Your task to perform on an android device: check android version Image 0: 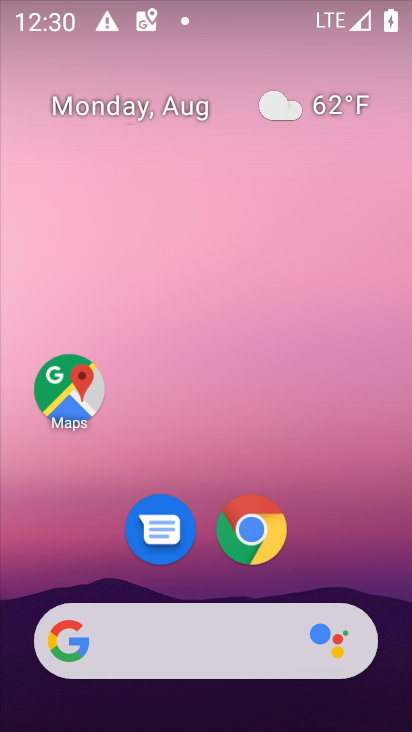
Step 0: drag from (208, 597) to (204, 284)
Your task to perform on an android device: check android version Image 1: 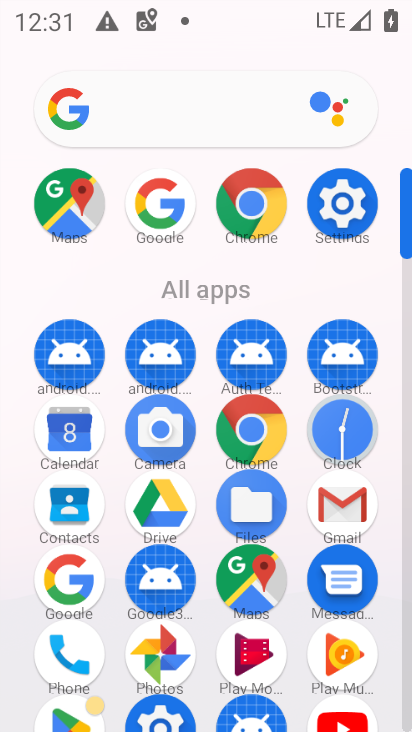
Step 1: click (324, 212)
Your task to perform on an android device: check android version Image 2: 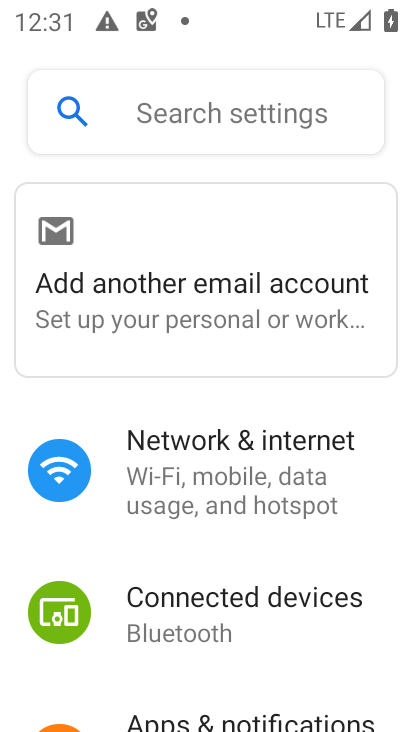
Step 2: drag from (319, 591) to (336, 259)
Your task to perform on an android device: check android version Image 3: 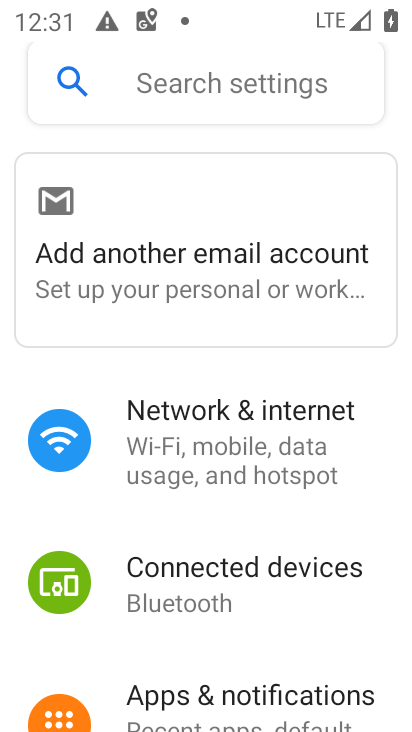
Step 3: drag from (207, 688) to (180, 294)
Your task to perform on an android device: check android version Image 4: 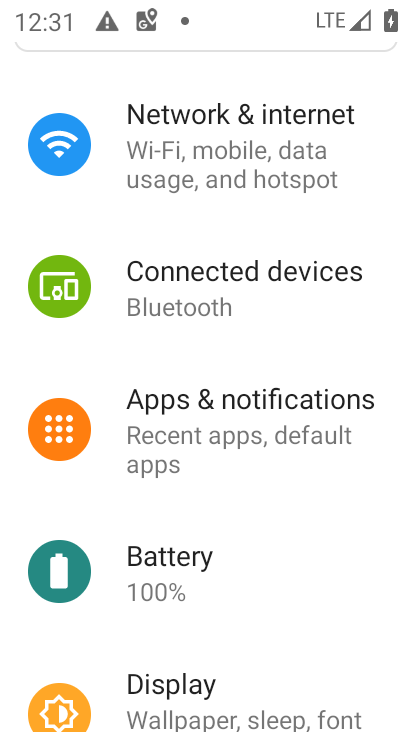
Step 4: drag from (106, 706) to (102, 381)
Your task to perform on an android device: check android version Image 5: 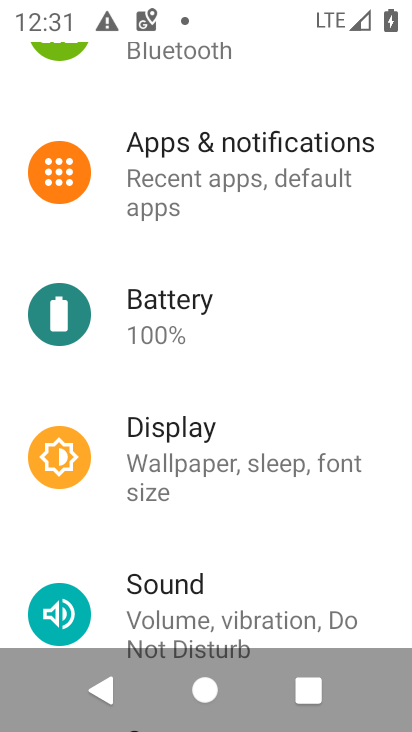
Step 5: drag from (181, 645) to (183, 347)
Your task to perform on an android device: check android version Image 6: 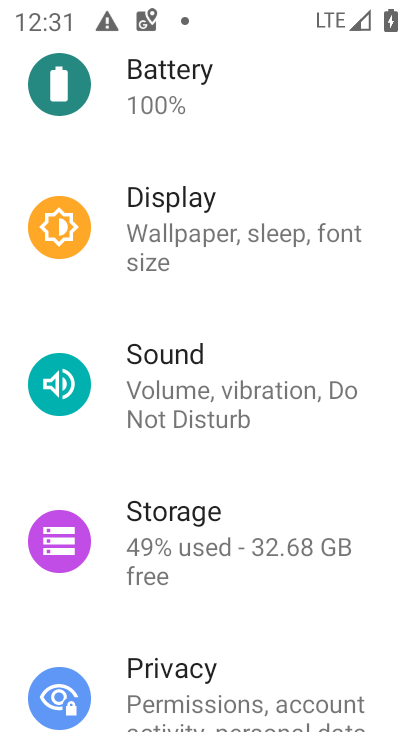
Step 6: drag from (161, 657) to (180, 348)
Your task to perform on an android device: check android version Image 7: 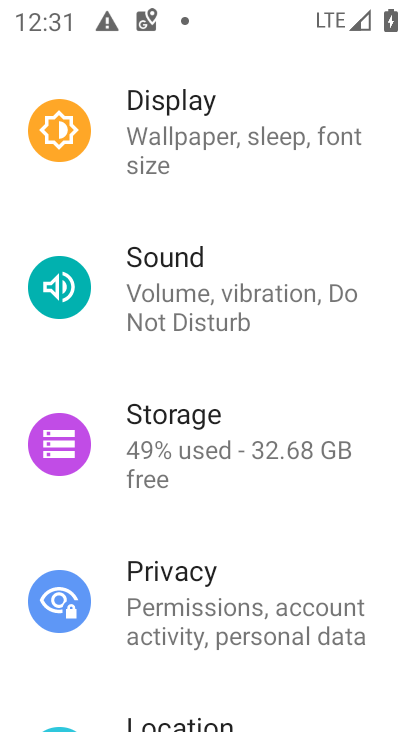
Step 7: drag from (160, 706) to (190, 344)
Your task to perform on an android device: check android version Image 8: 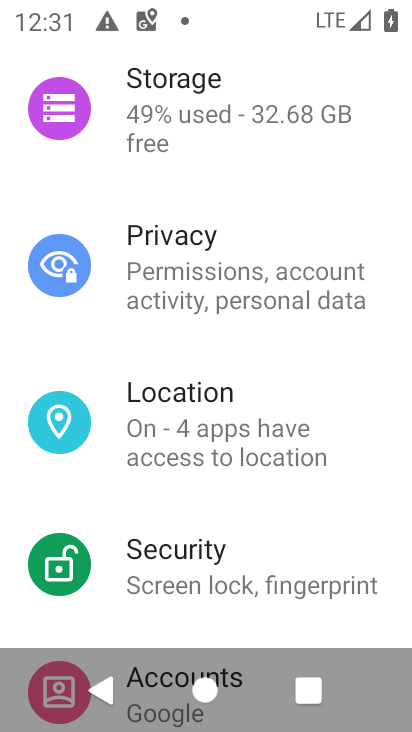
Step 8: drag from (166, 585) to (166, 244)
Your task to perform on an android device: check android version Image 9: 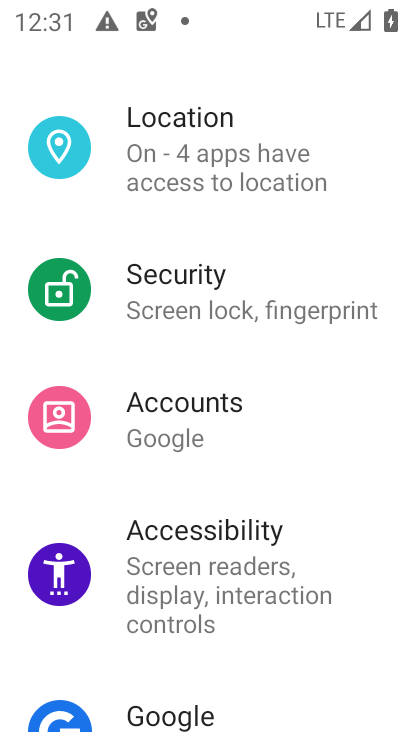
Step 9: drag from (125, 689) to (145, 326)
Your task to perform on an android device: check android version Image 10: 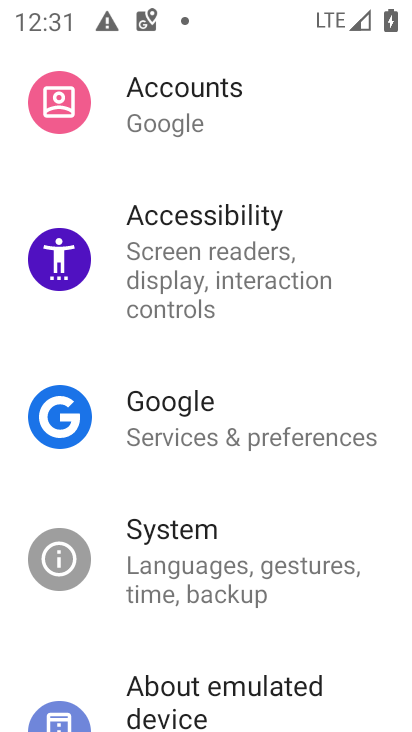
Step 10: click (169, 441)
Your task to perform on an android device: check android version Image 11: 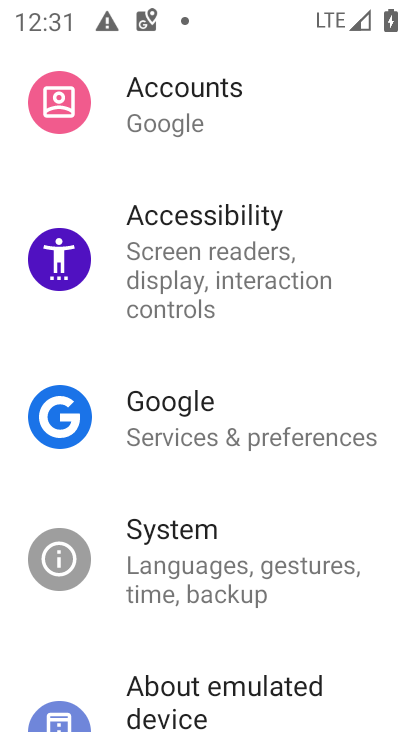
Step 11: click (170, 710)
Your task to perform on an android device: check android version Image 12: 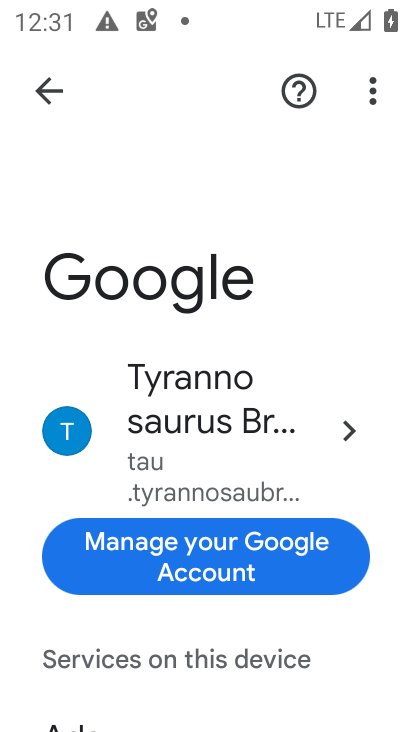
Step 12: drag from (188, 651) to (188, 292)
Your task to perform on an android device: check android version Image 13: 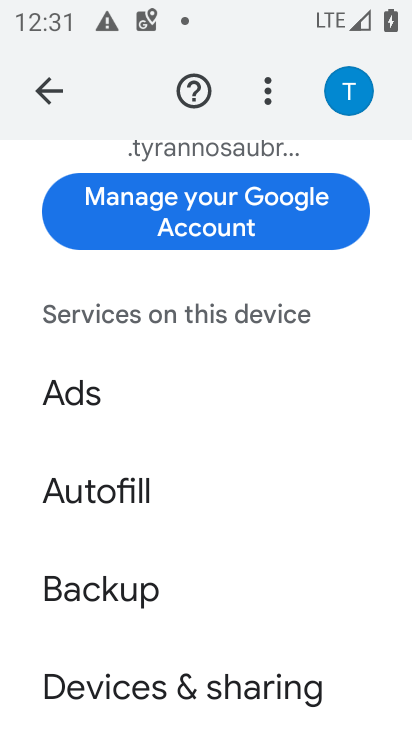
Step 13: drag from (152, 646) to (150, 378)
Your task to perform on an android device: check android version Image 14: 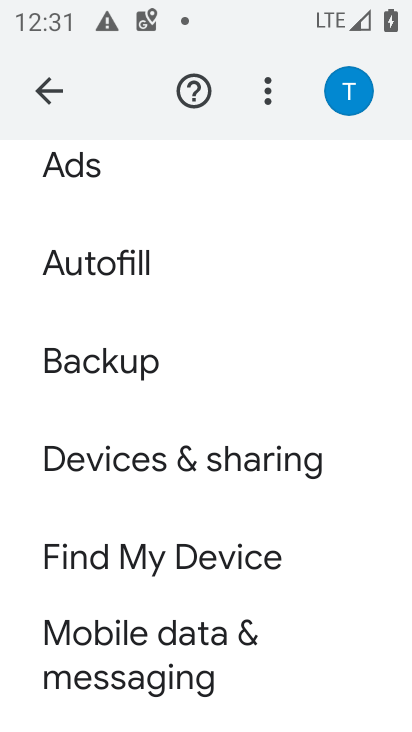
Step 14: drag from (126, 666) to (125, 348)
Your task to perform on an android device: check android version Image 15: 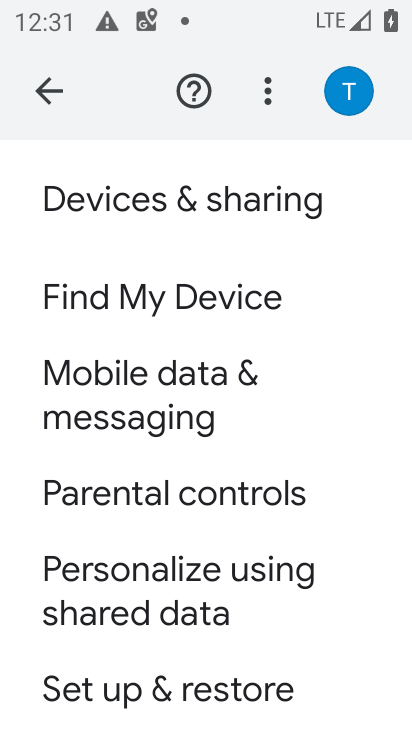
Step 15: drag from (83, 676) to (83, 460)
Your task to perform on an android device: check android version Image 16: 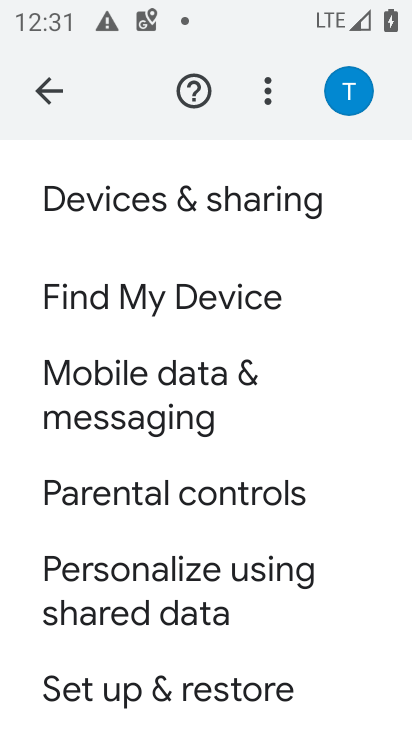
Step 16: drag from (112, 671) to (112, 367)
Your task to perform on an android device: check android version Image 17: 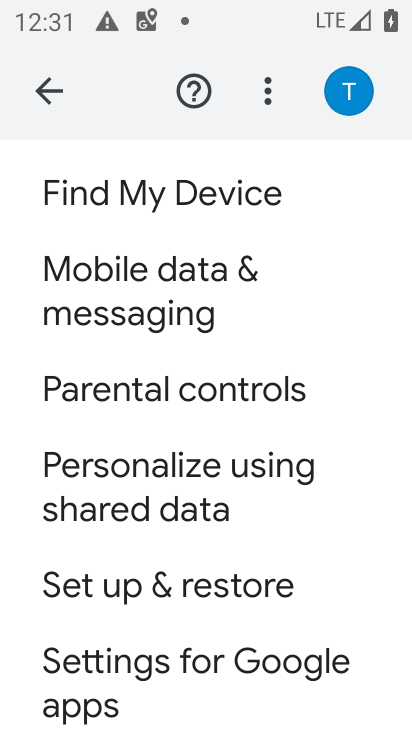
Step 17: drag from (115, 695) to (127, 389)
Your task to perform on an android device: check android version Image 18: 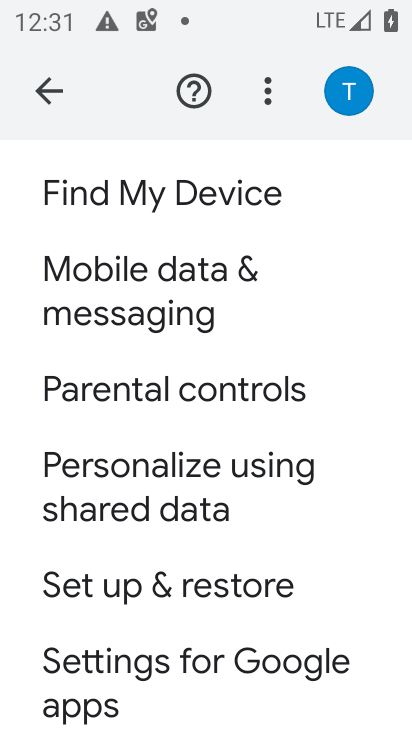
Step 18: click (44, 85)
Your task to perform on an android device: check android version Image 19: 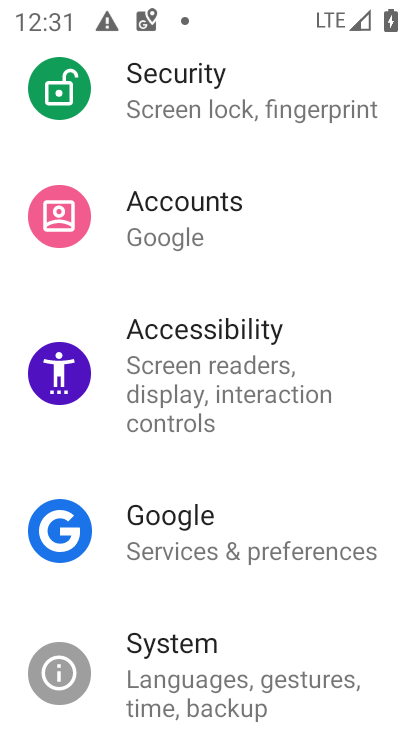
Step 19: drag from (247, 707) to (204, 334)
Your task to perform on an android device: check android version Image 20: 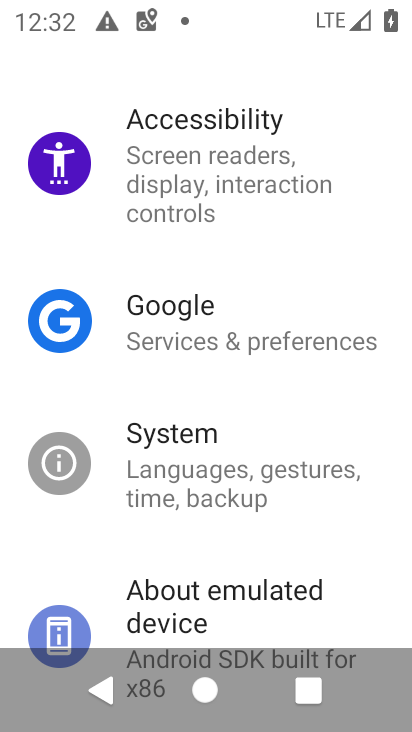
Step 20: click (177, 614)
Your task to perform on an android device: check android version Image 21: 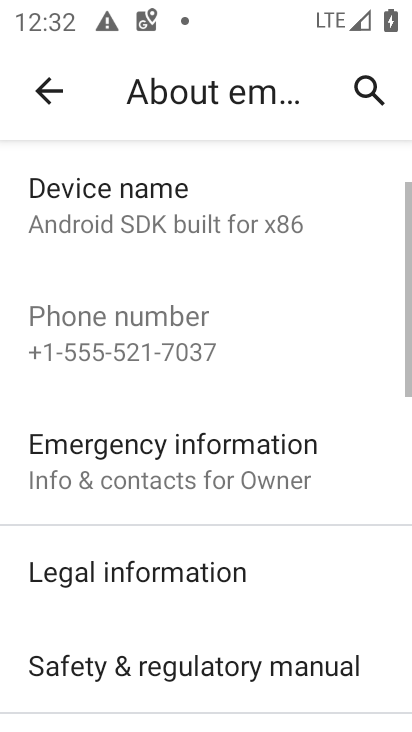
Step 21: drag from (188, 606) to (167, 299)
Your task to perform on an android device: check android version Image 22: 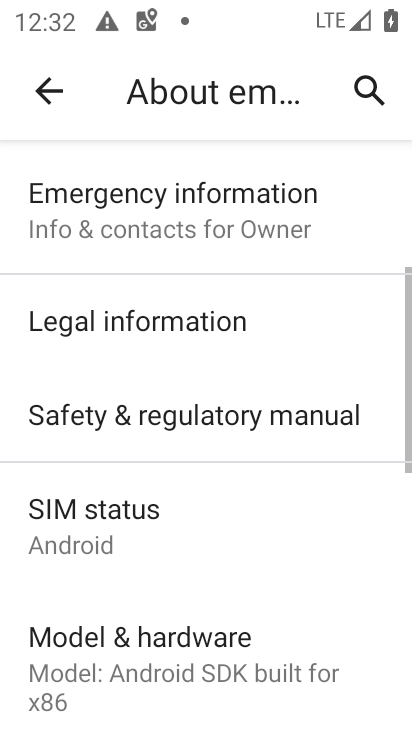
Step 22: drag from (80, 641) to (103, 258)
Your task to perform on an android device: check android version Image 23: 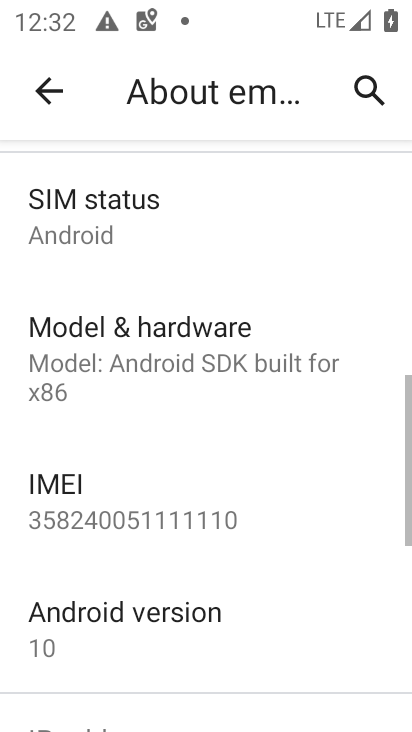
Step 23: click (64, 629)
Your task to perform on an android device: check android version Image 24: 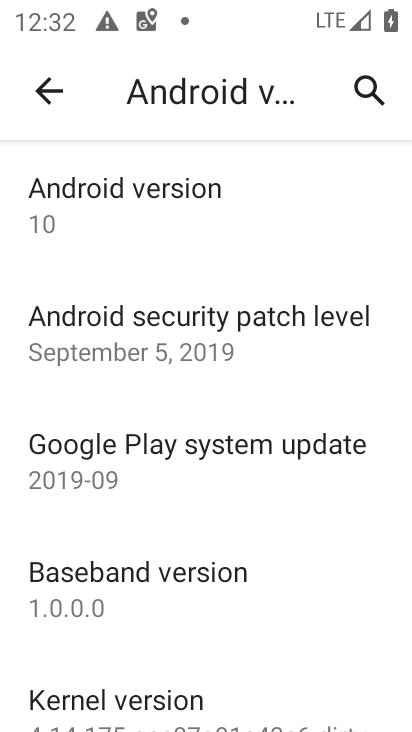
Step 24: task complete